Your task to perform on an android device: turn on translation in the chrome app Image 0: 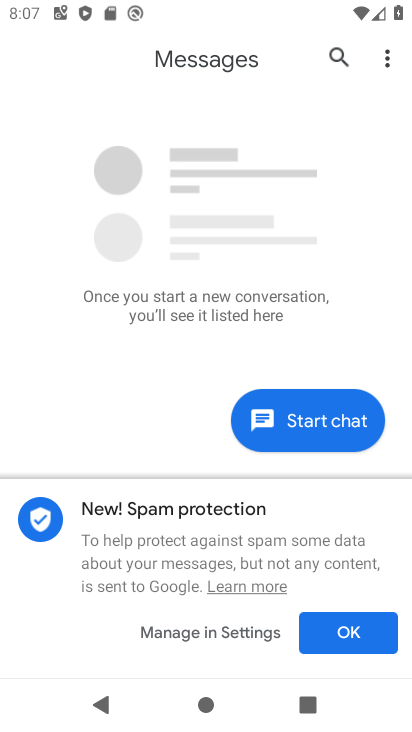
Step 0: press home button
Your task to perform on an android device: turn on translation in the chrome app Image 1: 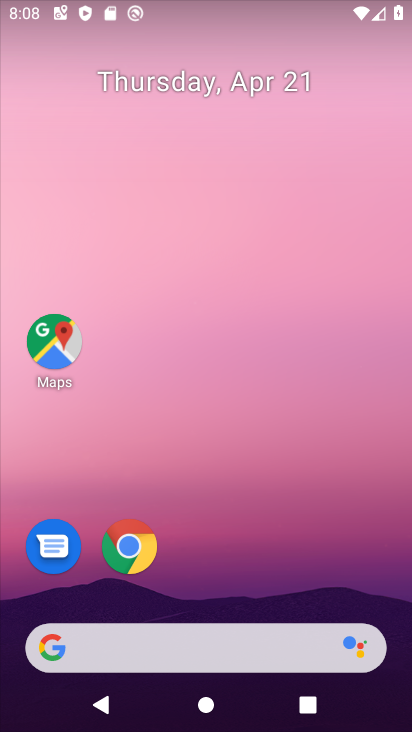
Step 1: click (132, 553)
Your task to perform on an android device: turn on translation in the chrome app Image 2: 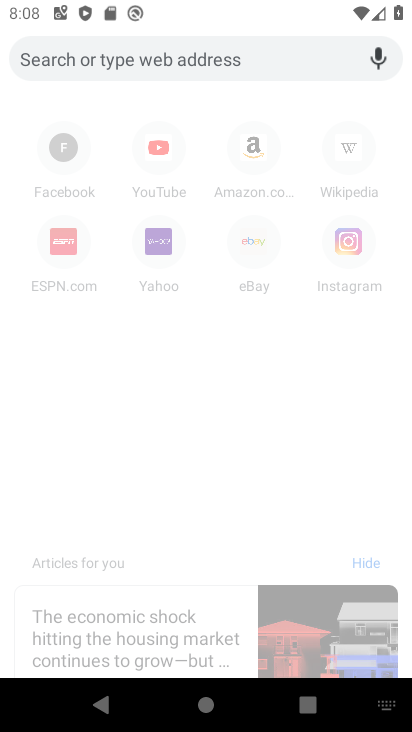
Step 2: press back button
Your task to perform on an android device: turn on translation in the chrome app Image 3: 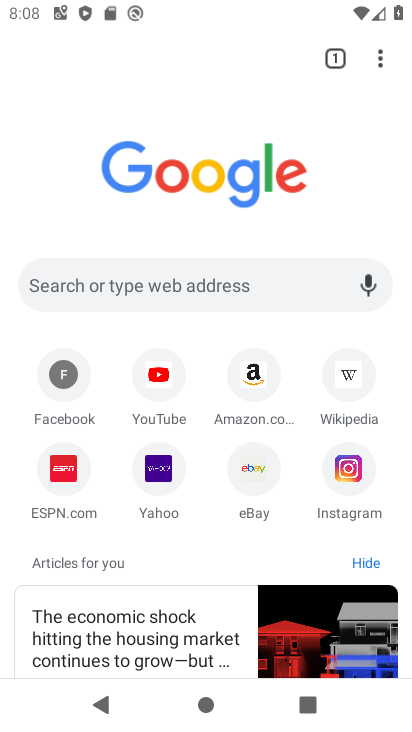
Step 3: click (380, 53)
Your task to perform on an android device: turn on translation in the chrome app Image 4: 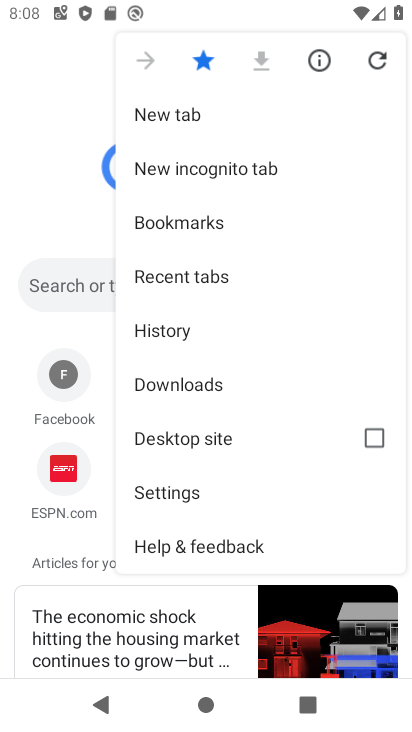
Step 4: click (194, 496)
Your task to perform on an android device: turn on translation in the chrome app Image 5: 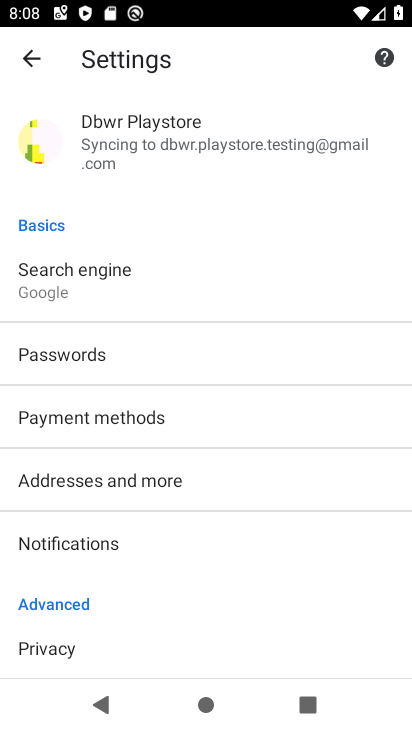
Step 5: drag from (162, 529) to (171, 224)
Your task to perform on an android device: turn on translation in the chrome app Image 6: 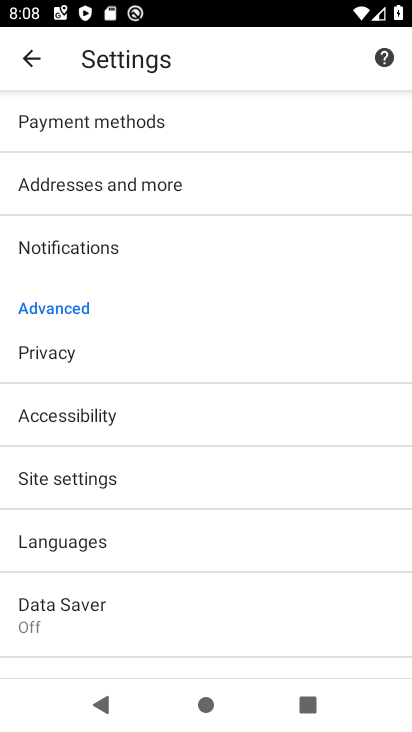
Step 6: click (136, 546)
Your task to perform on an android device: turn on translation in the chrome app Image 7: 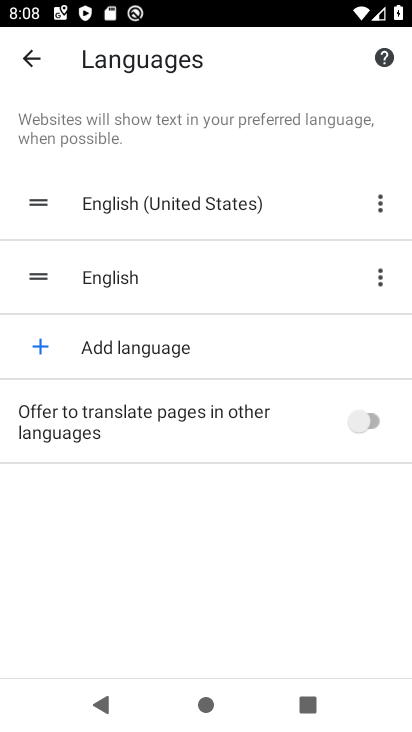
Step 7: click (371, 419)
Your task to perform on an android device: turn on translation in the chrome app Image 8: 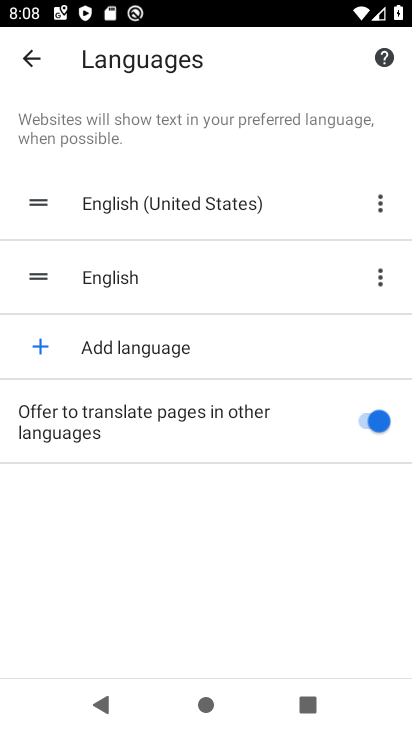
Step 8: task complete